Your task to perform on an android device: turn off picture-in-picture Image 0: 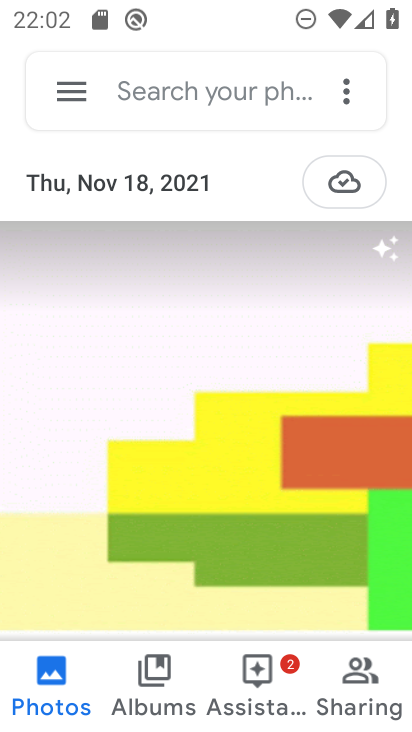
Step 0: press home button
Your task to perform on an android device: turn off picture-in-picture Image 1: 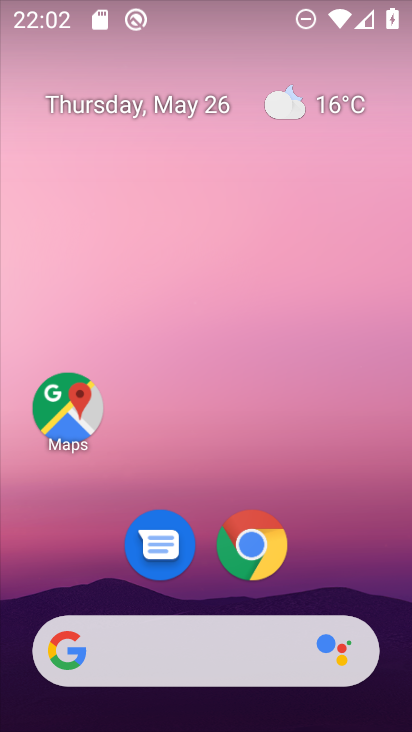
Step 1: click (253, 545)
Your task to perform on an android device: turn off picture-in-picture Image 2: 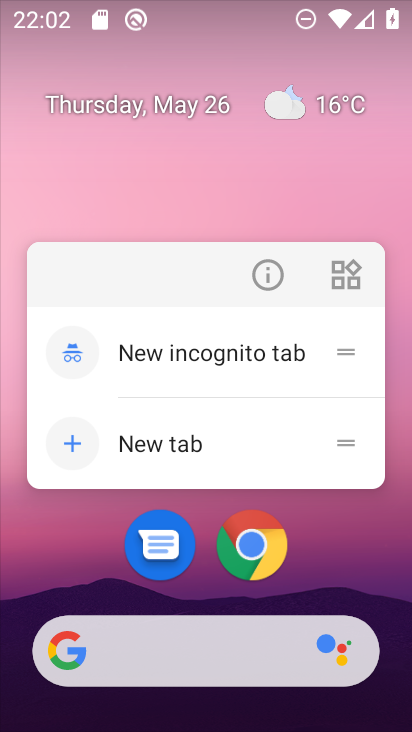
Step 2: click (271, 272)
Your task to perform on an android device: turn off picture-in-picture Image 3: 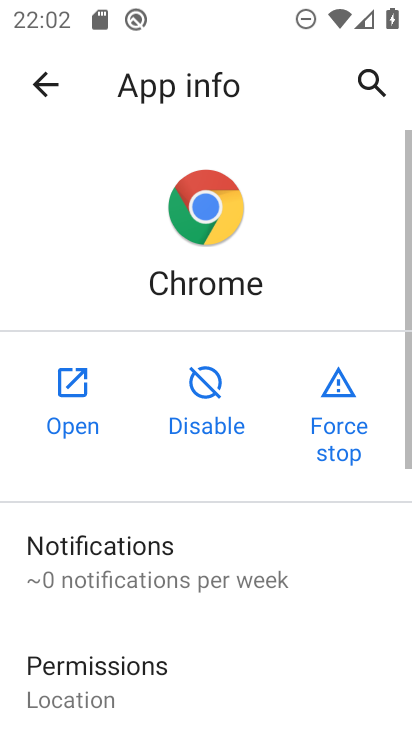
Step 3: drag from (287, 636) to (272, 73)
Your task to perform on an android device: turn off picture-in-picture Image 4: 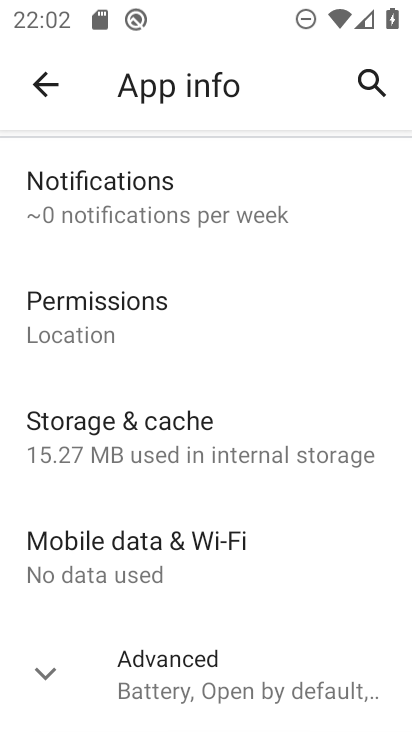
Step 4: click (181, 668)
Your task to perform on an android device: turn off picture-in-picture Image 5: 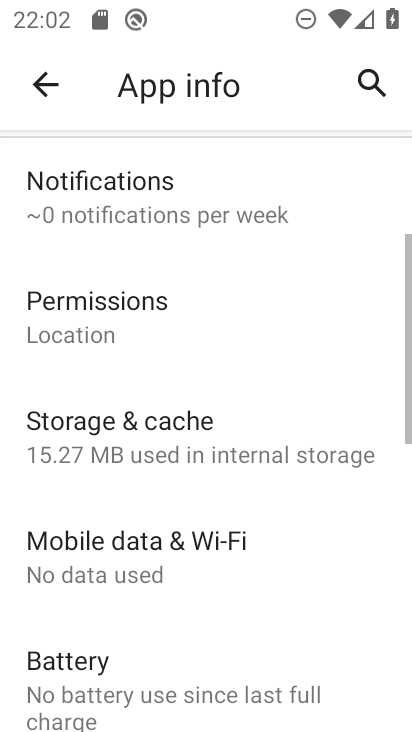
Step 5: drag from (282, 621) to (277, 154)
Your task to perform on an android device: turn off picture-in-picture Image 6: 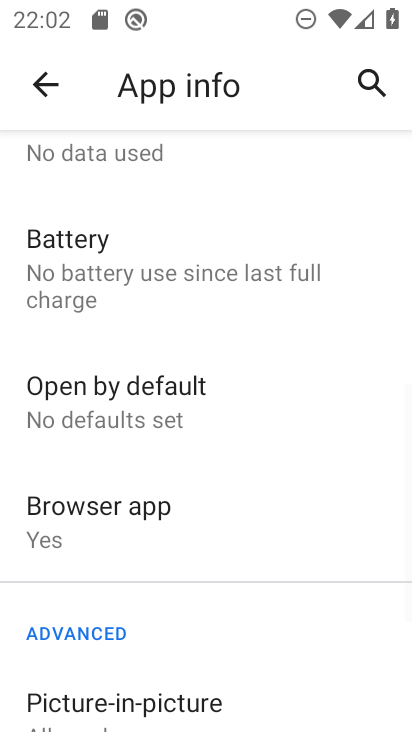
Step 6: drag from (215, 681) to (201, 427)
Your task to perform on an android device: turn off picture-in-picture Image 7: 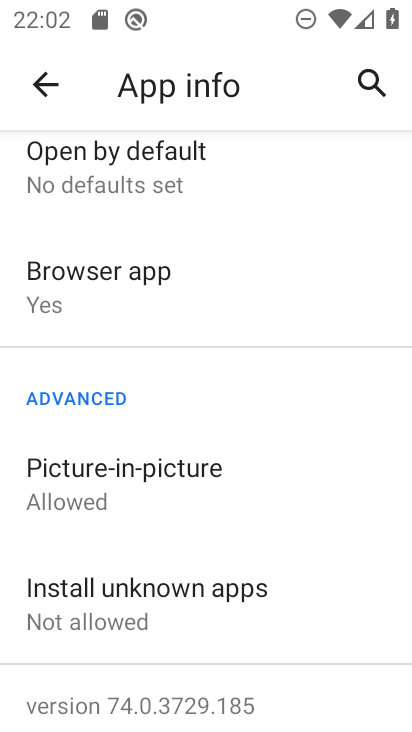
Step 7: click (166, 481)
Your task to perform on an android device: turn off picture-in-picture Image 8: 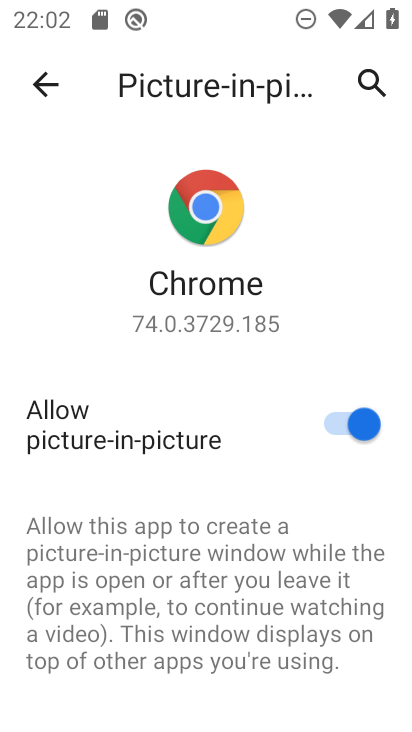
Step 8: click (368, 409)
Your task to perform on an android device: turn off picture-in-picture Image 9: 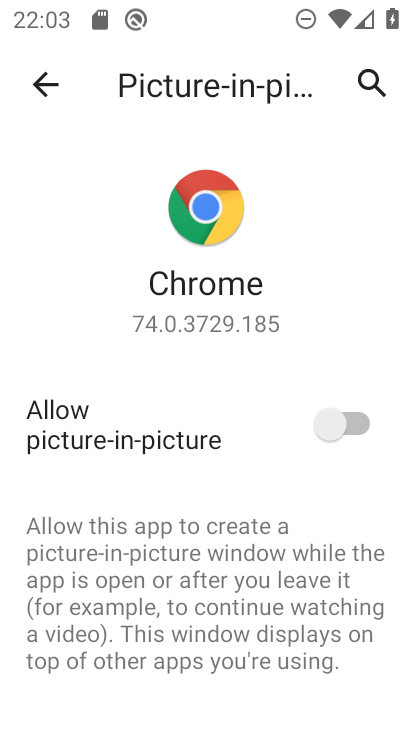
Step 9: task complete